Your task to perform on an android device: Open privacy settings Image 0: 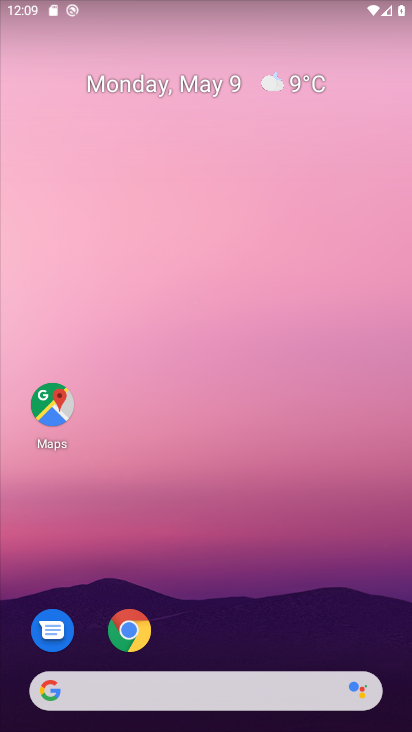
Step 0: drag from (254, 637) to (325, 85)
Your task to perform on an android device: Open privacy settings Image 1: 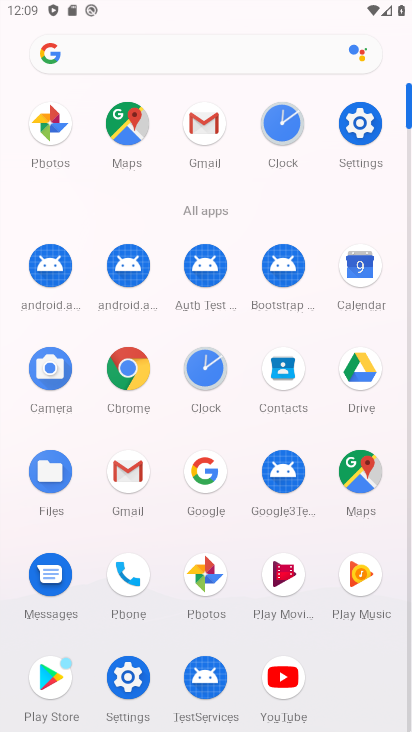
Step 1: click (365, 126)
Your task to perform on an android device: Open privacy settings Image 2: 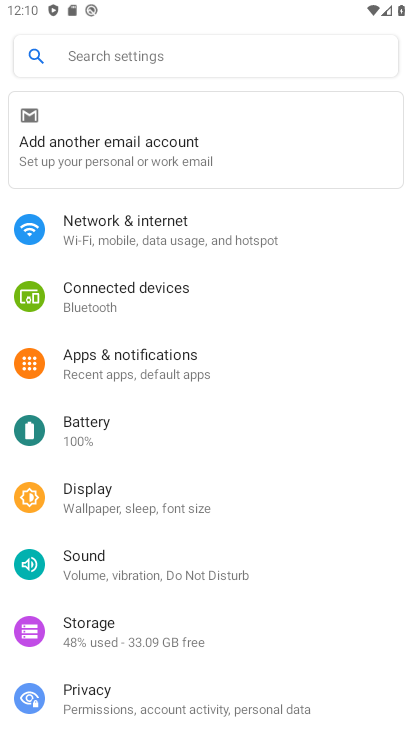
Step 2: click (104, 699)
Your task to perform on an android device: Open privacy settings Image 3: 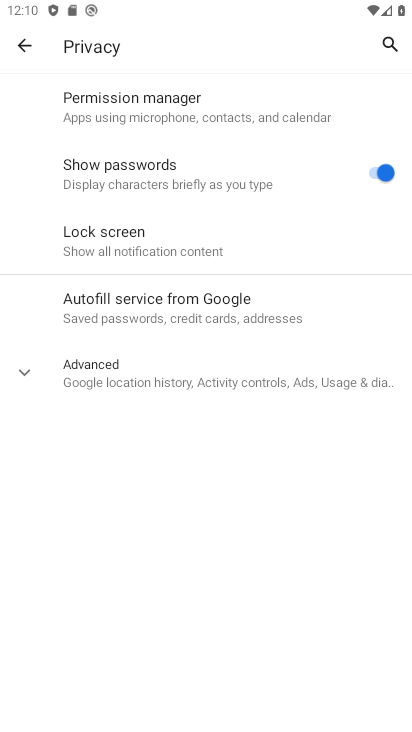
Step 3: task complete